Your task to perform on an android device: Open Google Chrome and open the bookmarks view Image 0: 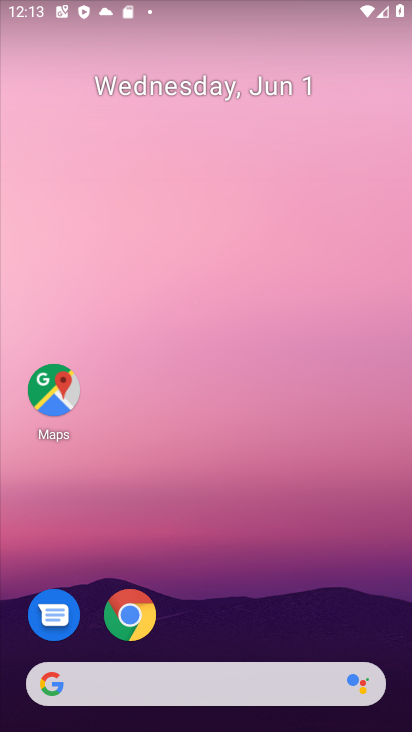
Step 0: click (139, 622)
Your task to perform on an android device: Open Google Chrome and open the bookmarks view Image 1: 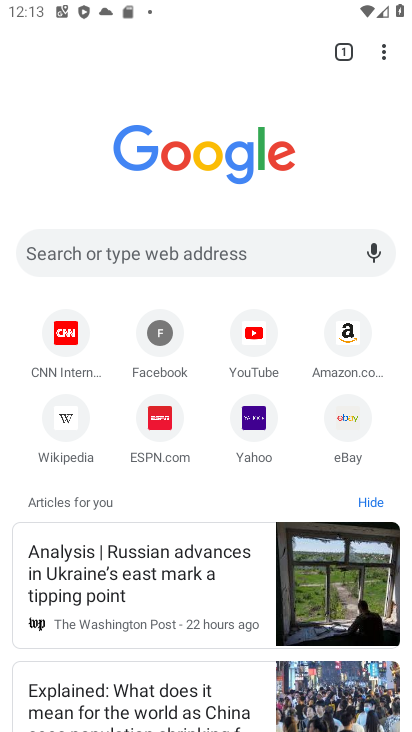
Step 1: task complete